Your task to perform on an android device: Is it going to rain tomorrow? Image 0: 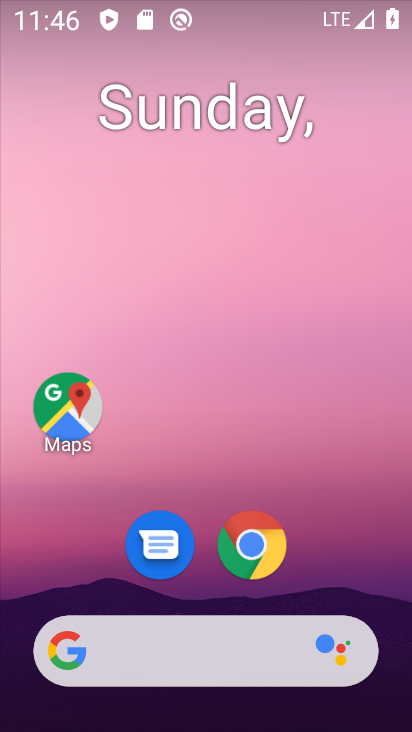
Step 0: click (229, 652)
Your task to perform on an android device: Is it going to rain tomorrow? Image 1: 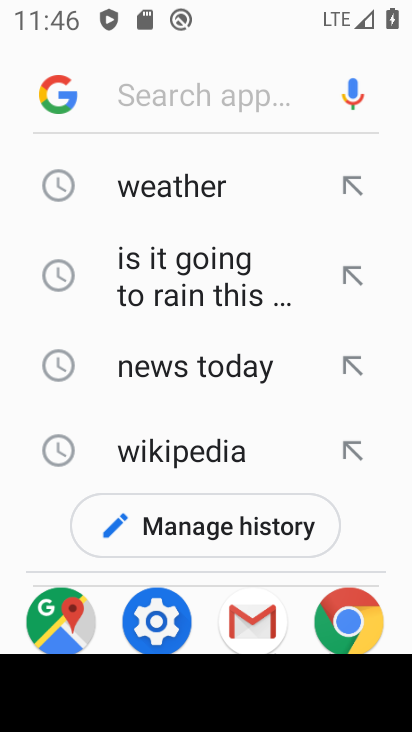
Step 1: click (218, 193)
Your task to perform on an android device: Is it going to rain tomorrow? Image 2: 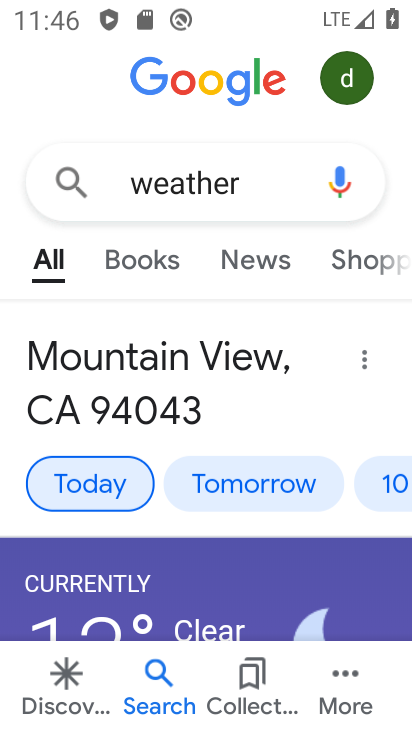
Step 2: click (272, 481)
Your task to perform on an android device: Is it going to rain tomorrow? Image 3: 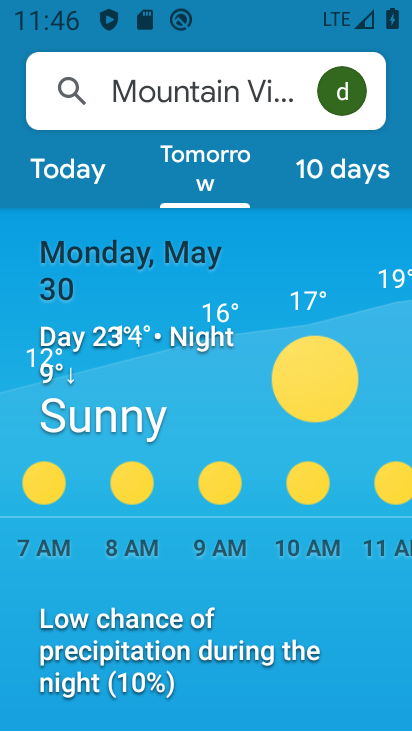
Step 3: task complete